Your task to perform on an android device: Check the news Image 0: 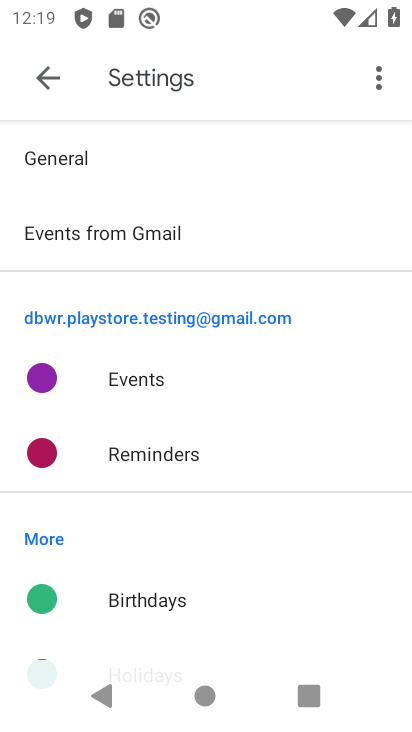
Step 0: press home button
Your task to perform on an android device: Check the news Image 1: 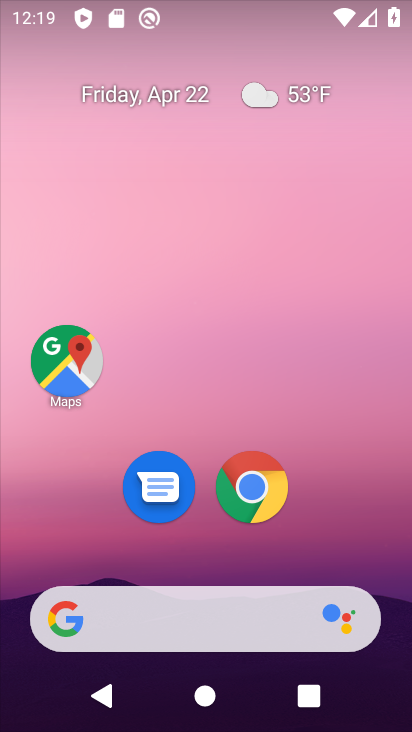
Step 1: click (207, 613)
Your task to perform on an android device: Check the news Image 2: 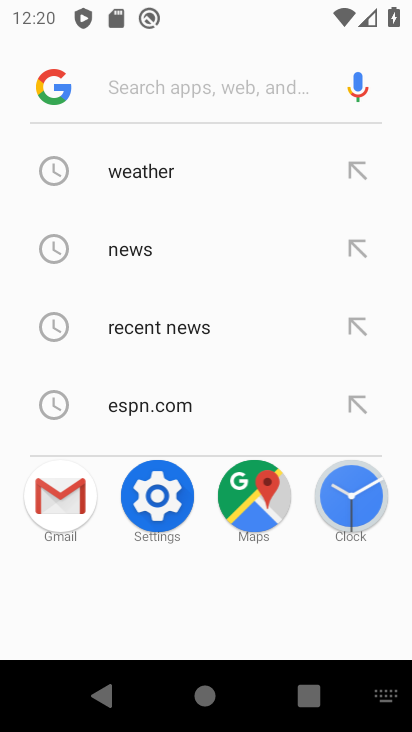
Step 2: click (70, 111)
Your task to perform on an android device: Check the news Image 3: 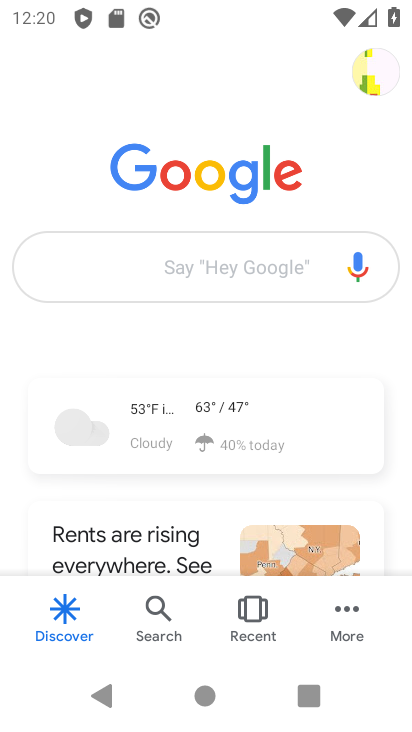
Step 3: task complete